Your task to perform on an android device: open sync settings in chrome Image 0: 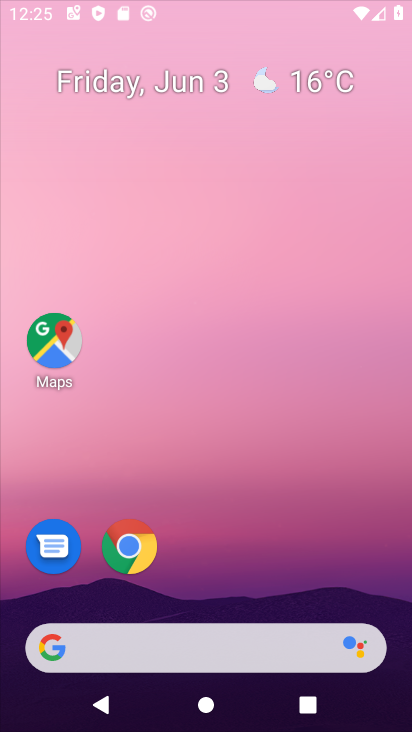
Step 0: click (171, 150)
Your task to perform on an android device: open sync settings in chrome Image 1: 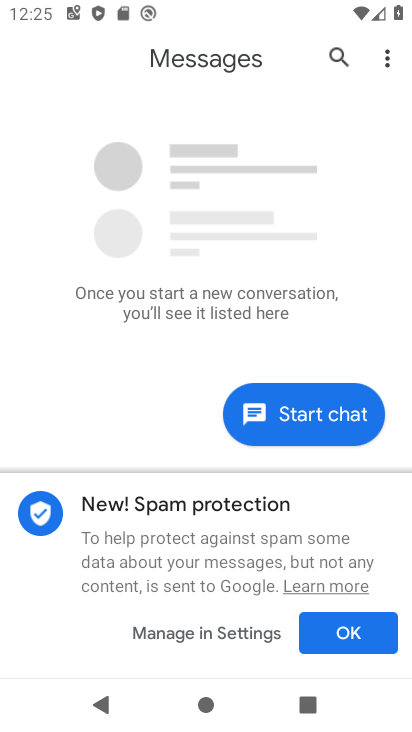
Step 1: press home button
Your task to perform on an android device: open sync settings in chrome Image 2: 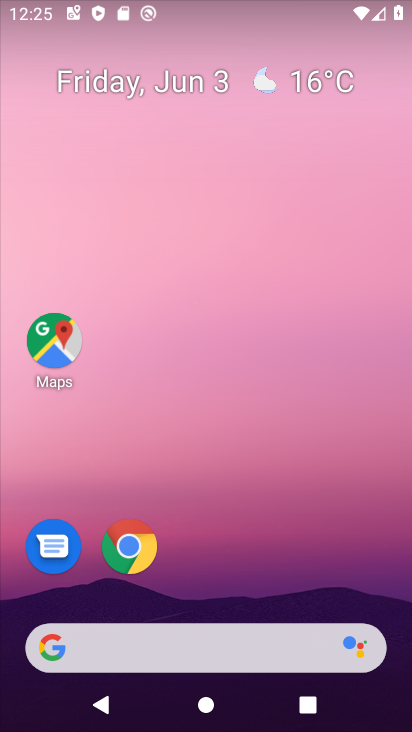
Step 2: click (131, 547)
Your task to perform on an android device: open sync settings in chrome Image 3: 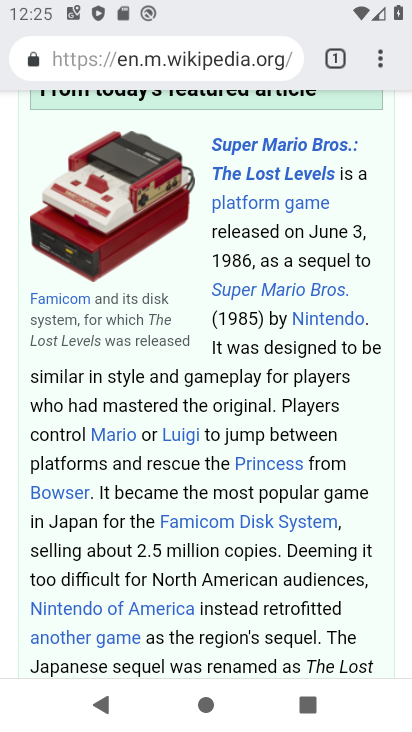
Step 3: click (381, 58)
Your task to perform on an android device: open sync settings in chrome Image 4: 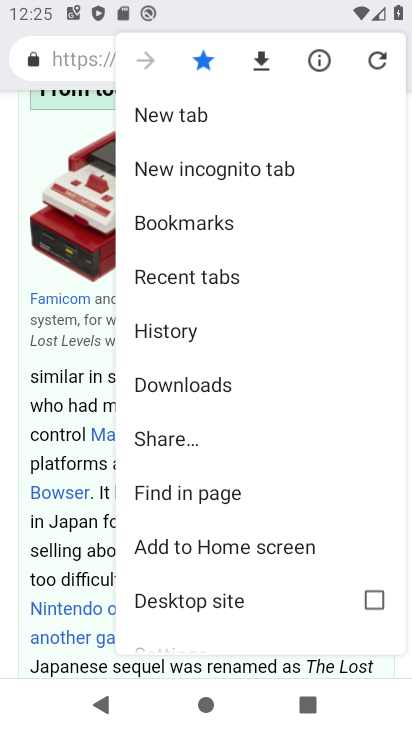
Step 4: drag from (235, 586) to (209, 251)
Your task to perform on an android device: open sync settings in chrome Image 5: 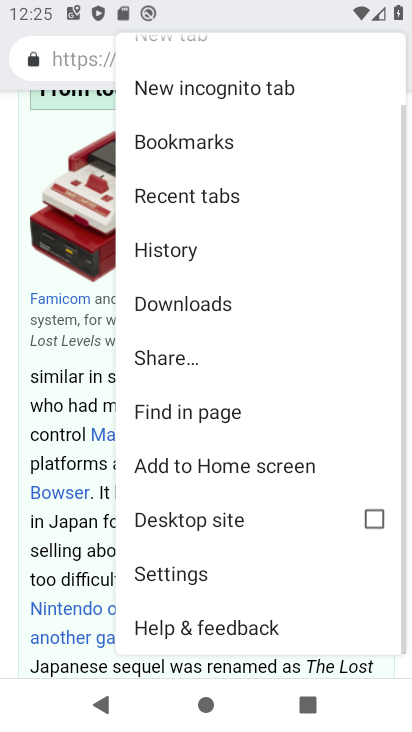
Step 5: click (192, 581)
Your task to perform on an android device: open sync settings in chrome Image 6: 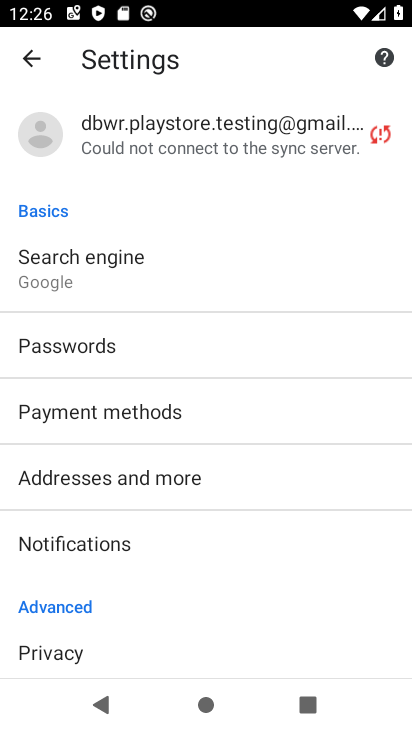
Step 6: click (132, 128)
Your task to perform on an android device: open sync settings in chrome Image 7: 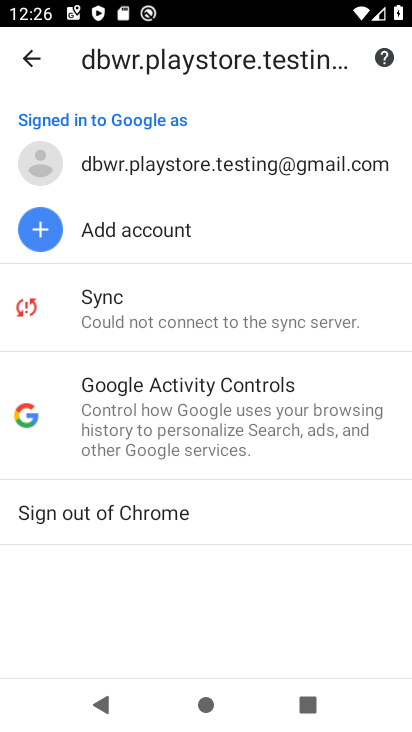
Step 7: click (100, 291)
Your task to perform on an android device: open sync settings in chrome Image 8: 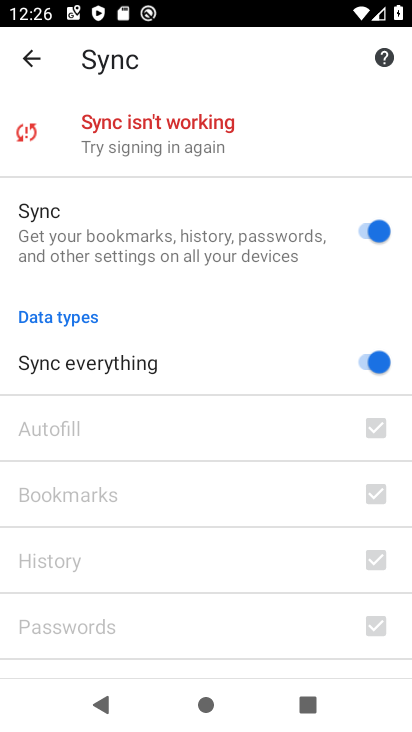
Step 8: task complete